Your task to perform on an android device: toggle improve location accuracy Image 0: 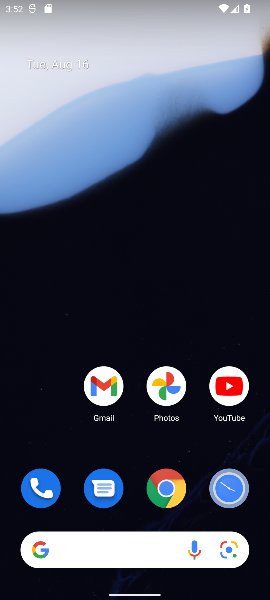
Step 0: drag from (166, 268) to (148, 41)
Your task to perform on an android device: toggle improve location accuracy Image 1: 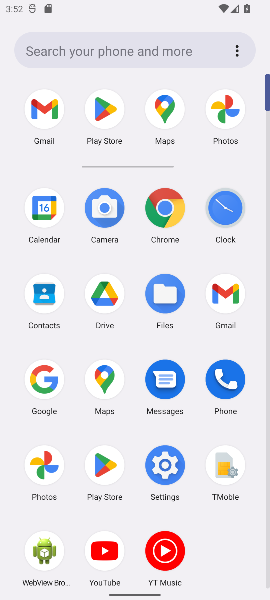
Step 1: click (162, 474)
Your task to perform on an android device: toggle improve location accuracy Image 2: 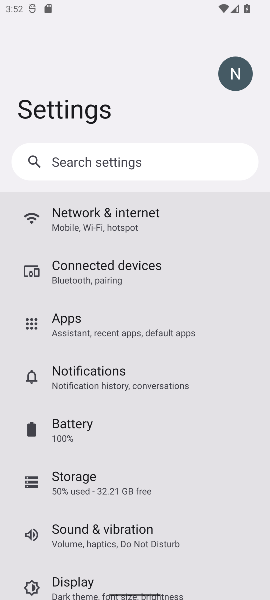
Step 2: task complete